Your task to perform on an android device: change the clock display to analog Image 0: 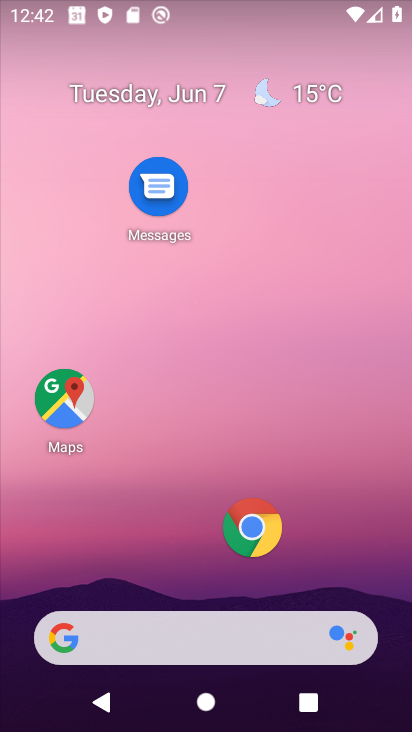
Step 0: drag from (171, 618) to (169, 374)
Your task to perform on an android device: change the clock display to analog Image 1: 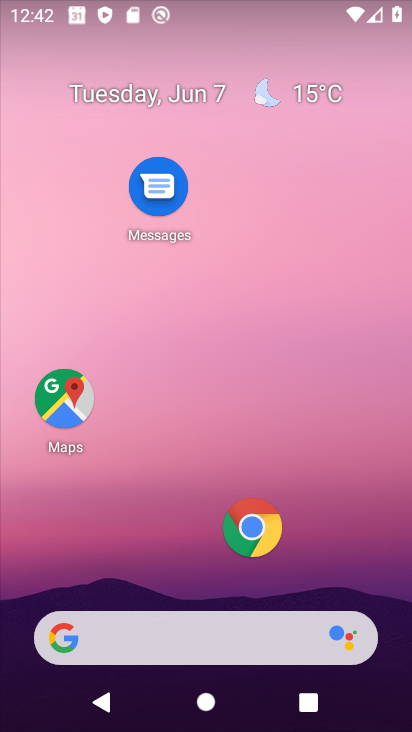
Step 1: drag from (208, 581) to (211, 336)
Your task to perform on an android device: change the clock display to analog Image 2: 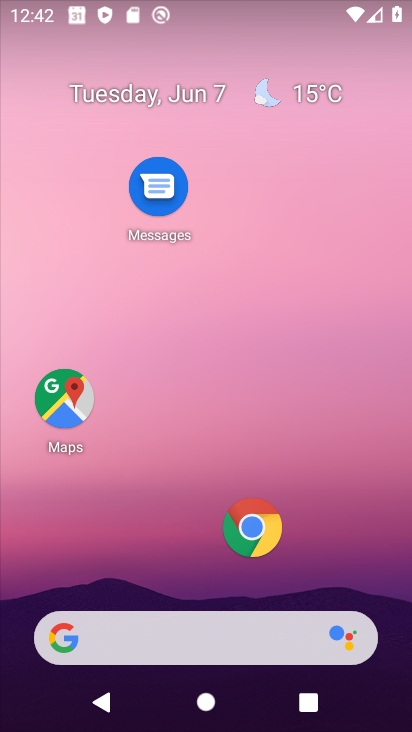
Step 2: drag from (305, 606) to (307, 226)
Your task to perform on an android device: change the clock display to analog Image 3: 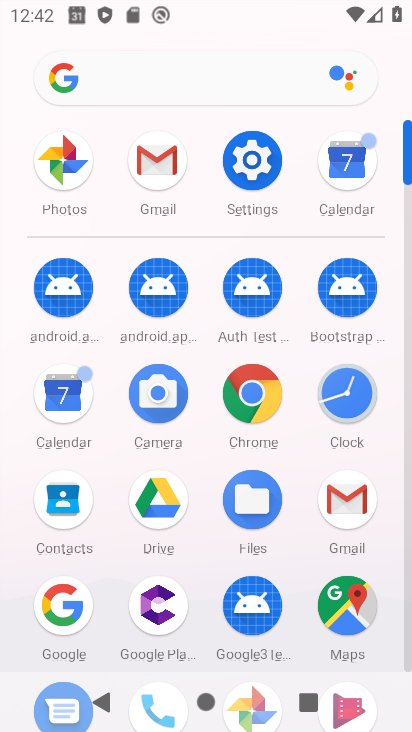
Step 3: click (364, 402)
Your task to perform on an android device: change the clock display to analog Image 4: 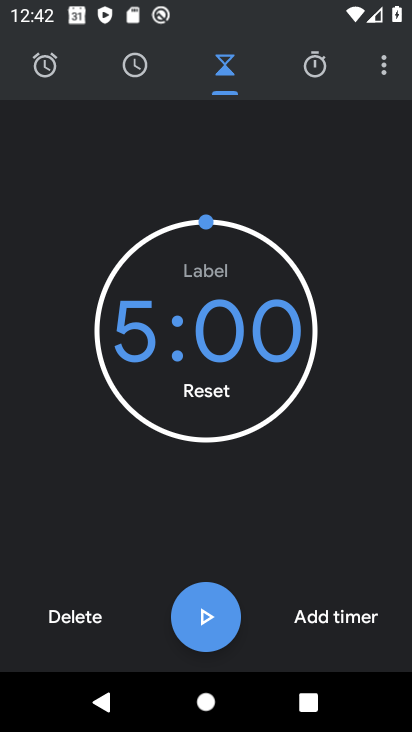
Step 4: click (383, 66)
Your task to perform on an android device: change the clock display to analog Image 5: 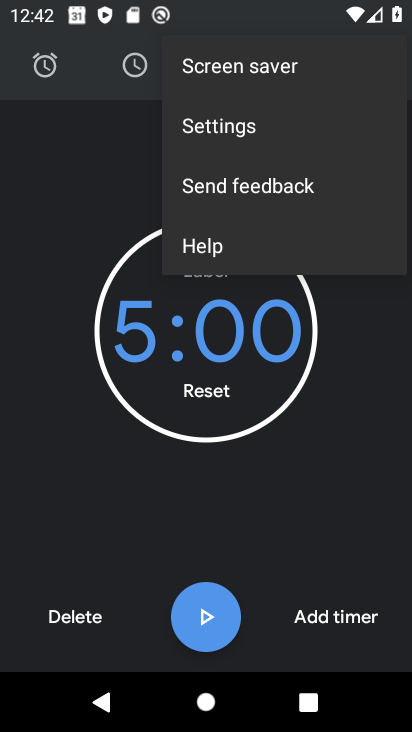
Step 5: click (245, 127)
Your task to perform on an android device: change the clock display to analog Image 6: 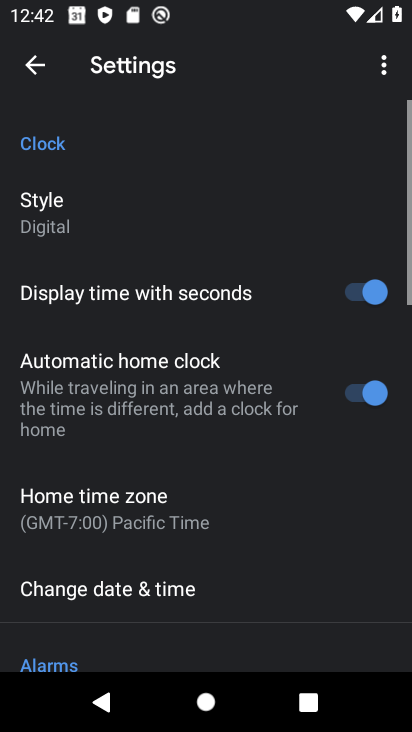
Step 6: click (53, 221)
Your task to perform on an android device: change the clock display to analog Image 7: 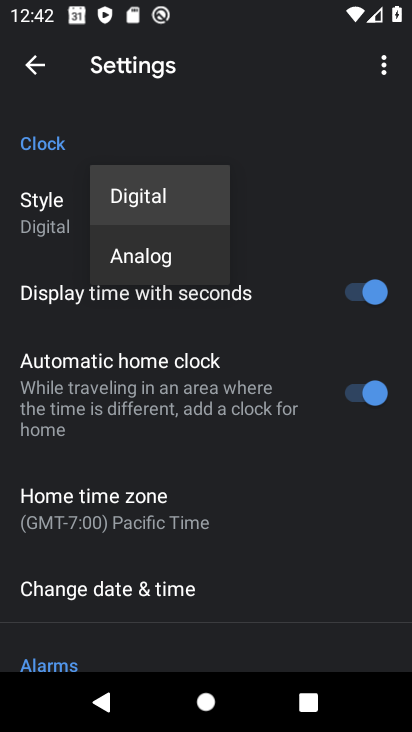
Step 7: click (124, 253)
Your task to perform on an android device: change the clock display to analog Image 8: 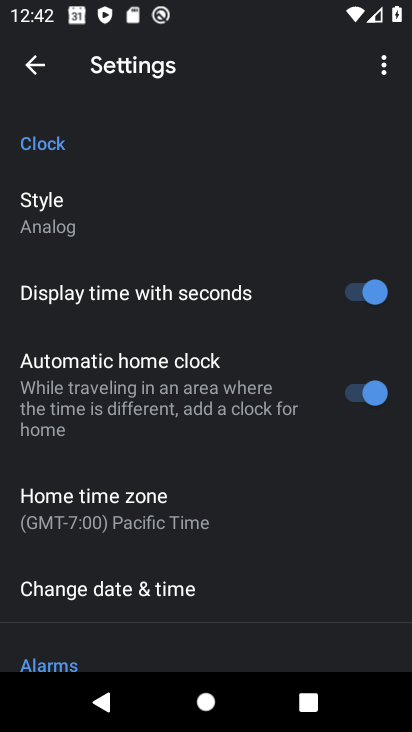
Step 8: task complete